Your task to perform on an android device: add a label to a message in the gmail app Image 0: 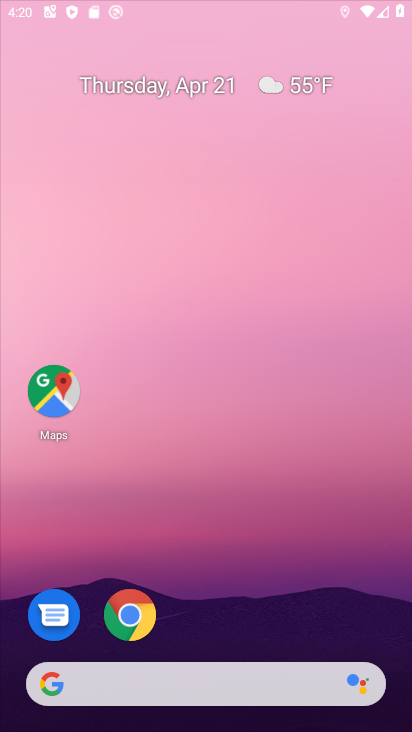
Step 0: drag from (209, 638) to (233, 131)
Your task to perform on an android device: add a label to a message in the gmail app Image 1: 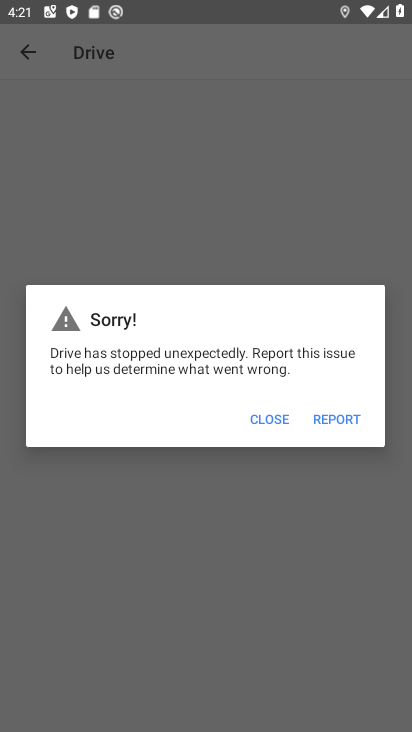
Step 1: press home button
Your task to perform on an android device: add a label to a message in the gmail app Image 2: 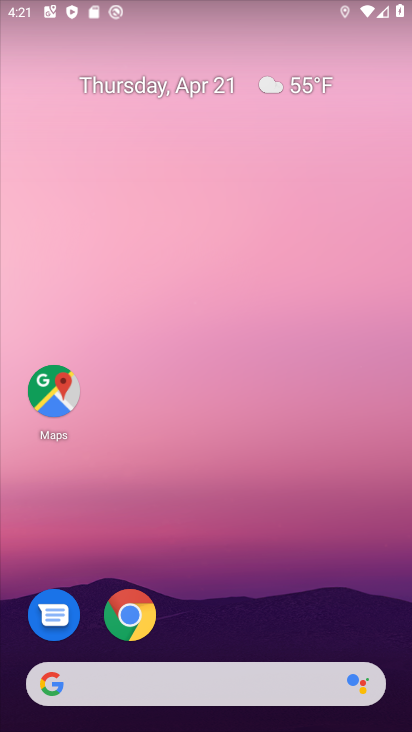
Step 2: drag from (208, 427) to (208, 135)
Your task to perform on an android device: add a label to a message in the gmail app Image 3: 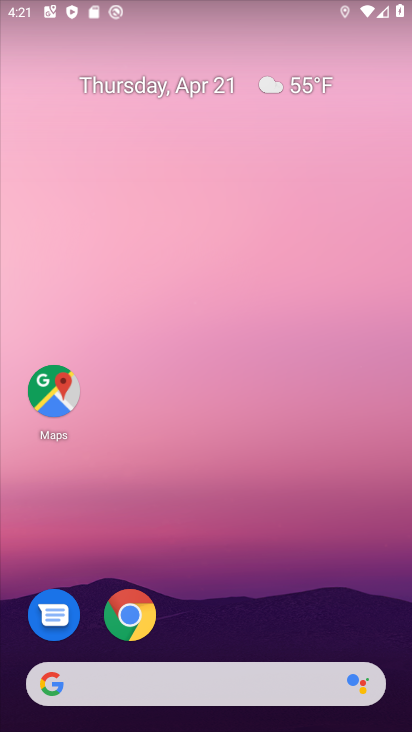
Step 3: drag from (206, 646) to (211, 159)
Your task to perform on an android device: add a label to a message in the gmail app Image 4: 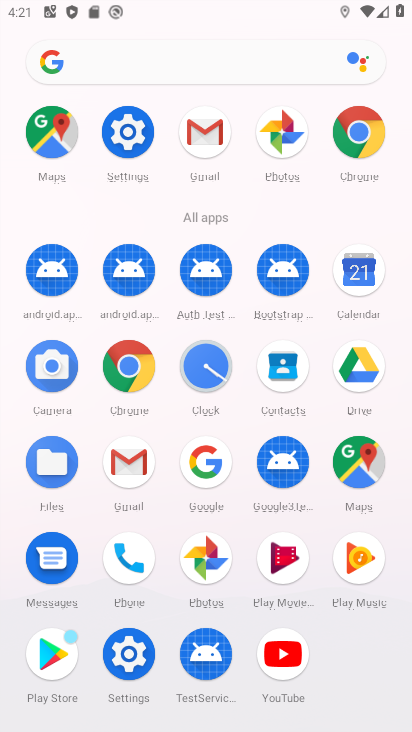
Step 4: click (211, 151)
Your task to perform on an android device: add a label to a message in the gmail app Image 5: 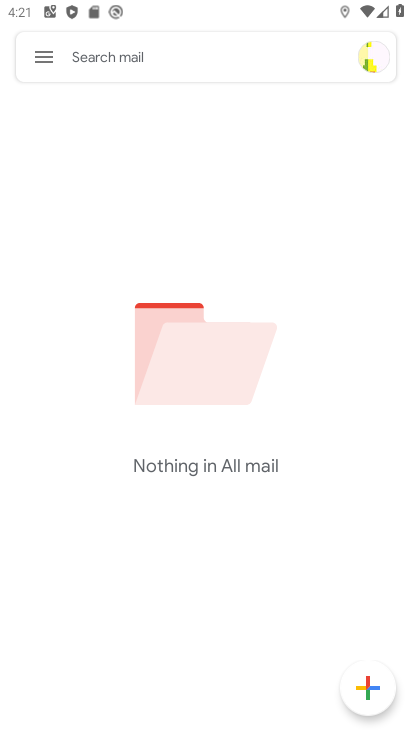
Step 5: click (43, 62)
Your task to perform on an android device: add a label to a message in the gmail app Image 6: 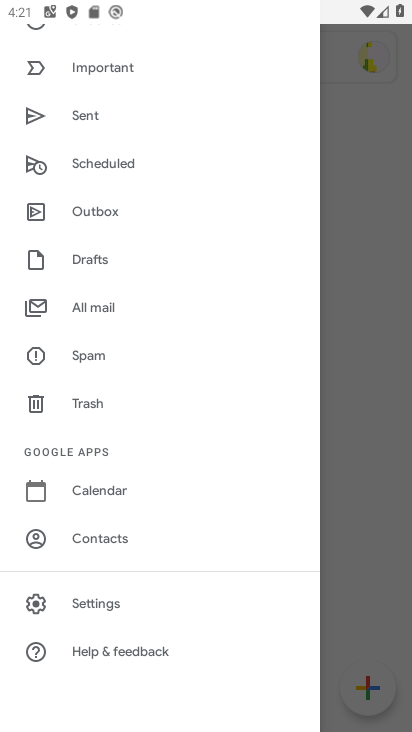
Step 6: drag from (128, 546) to (134, 254)
Your task to perform on an android device: add a label to a message in the gmail app Image 7: 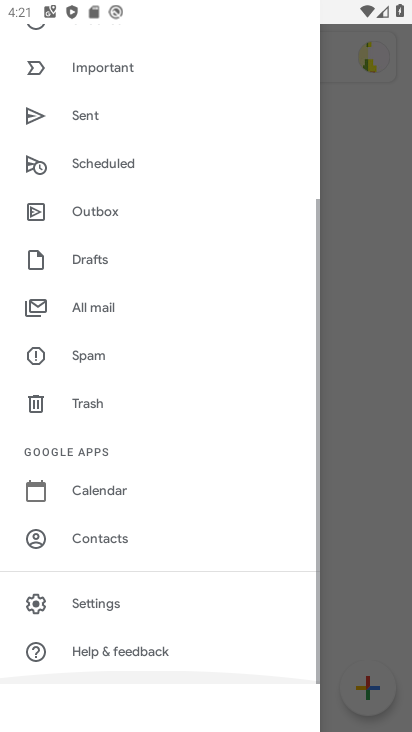
Step 7: click (118, 306)
Your task to perform on an android device: add a label to a message in the gmail app Image 8: 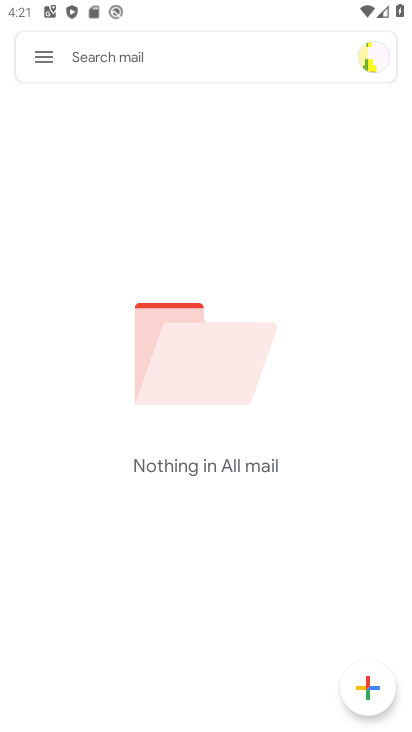
Step 8: task complete